Your task to perform on an android device: choose inbox layout in the gmail app Image 0: 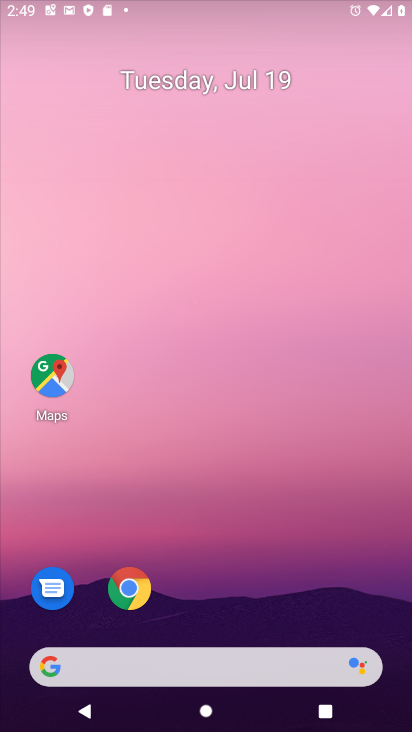
Step 0: drag from (352, 631) to (193, 75)
Your task to perform on an android device: choose inbox layout in the gmail app Image 1: 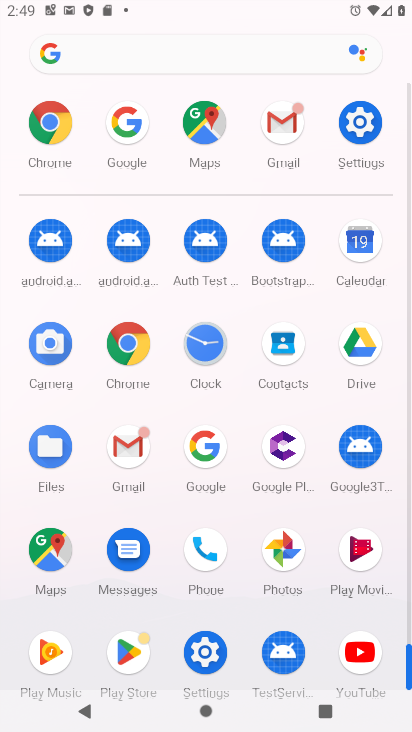
Step 1: click (137, 454)
Your task to perform on an android device: choose inbox layout in the gmail app Image 2: 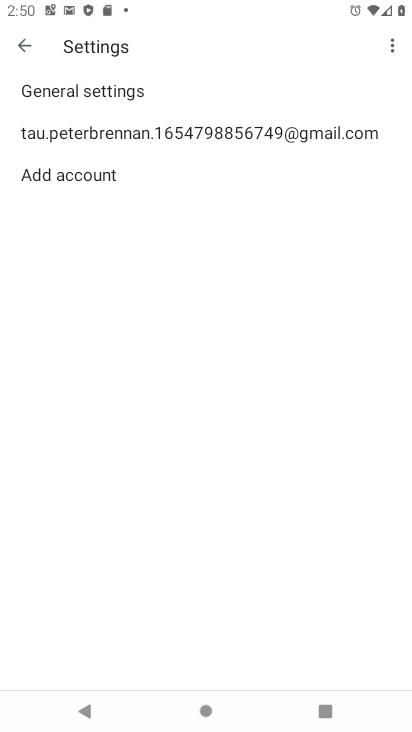
Step 2: task complete